Your task to perform on an android device: Open the calendar app, open the side menu, and click the "Day" option Image 0: 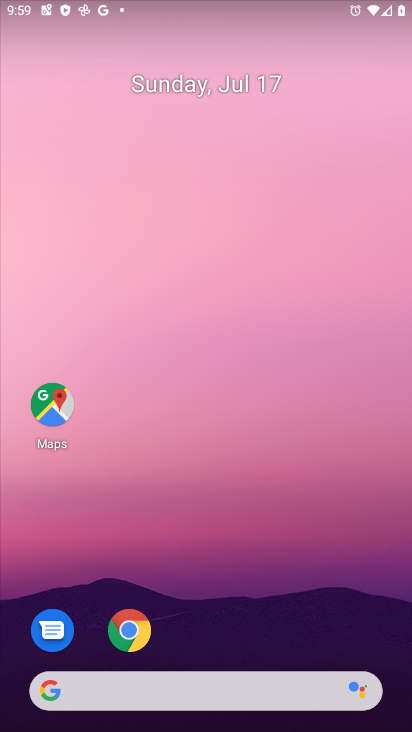
Step 0: drag from (166, 540) to (187, 122)
Your task to perform on an android device: Open the calendar app, open the side menu, and click the "Day" option Image 1: 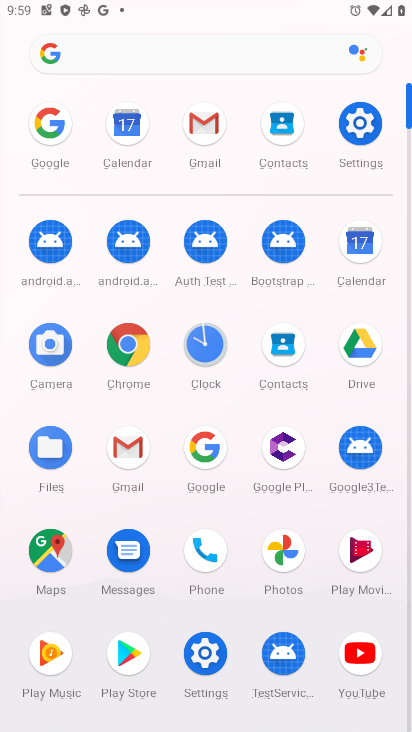
Step 1: click (364, 269)
Your task to perform on an android device: Open the calendar app, open the side menu, and click the "Day" option Image 2: 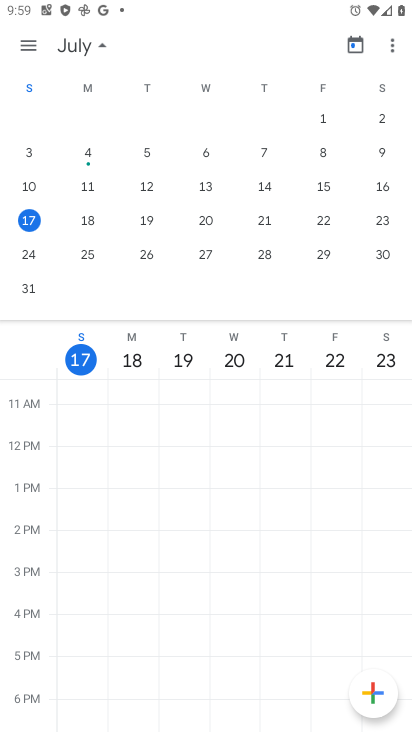
Step 2: click (23, 45)
Your task to perform on an android device: Open the calendar app, open the side menu, and click the "Day" option Image 3: 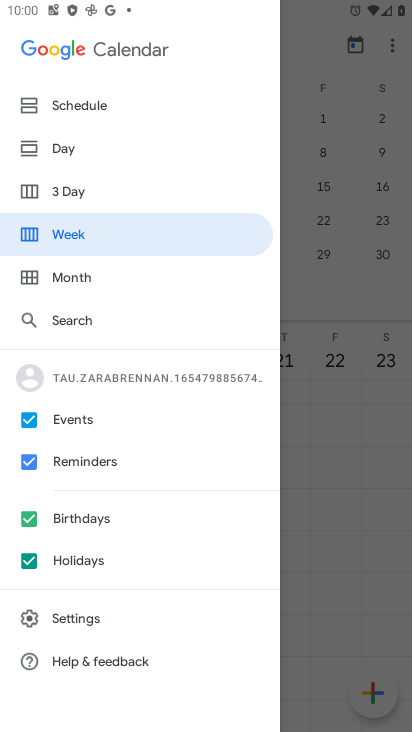
Step 3: click (63, 144)
Your task to perform on an android device: Open the calendar app, open the side menu, and click the "Day" option Image 4: 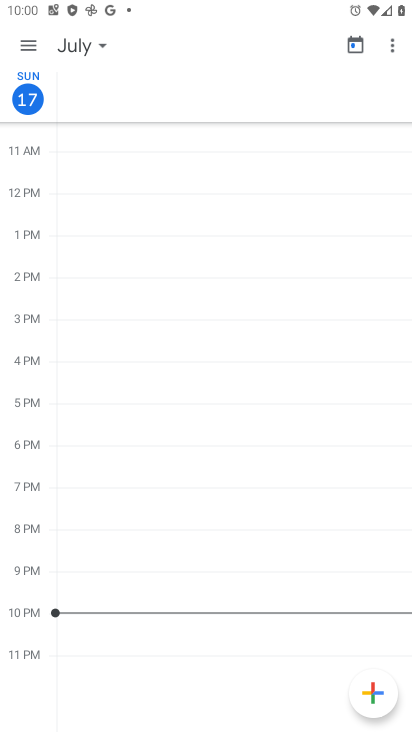
Step 4: task complete